Your task to perform on an android device: Go to CNN.com Image 0: 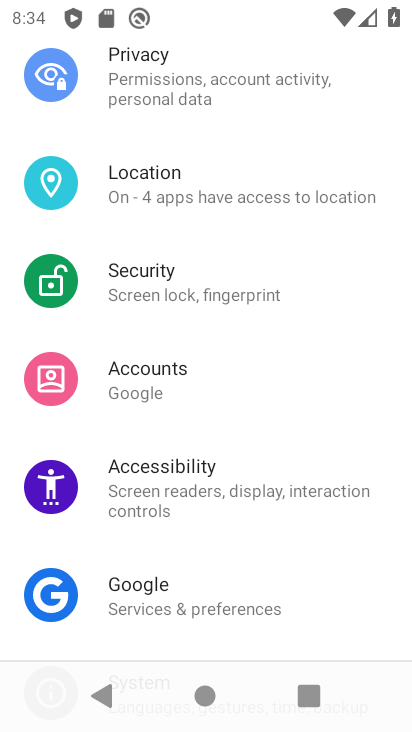
Step 0: press home button
Your task to perform on an android device: Go to CNN.com Image 1: 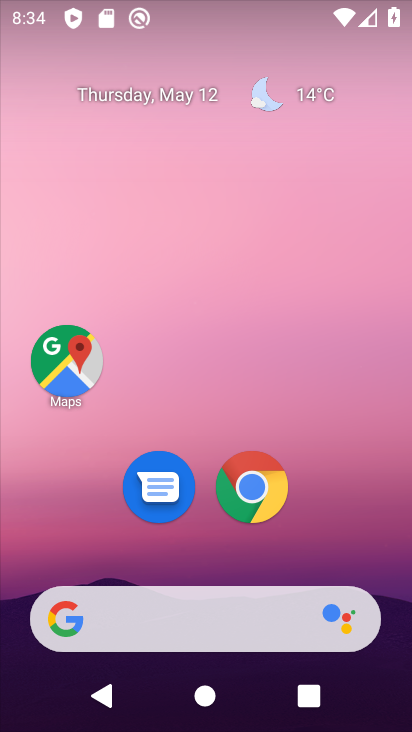
Step 1: click (268, 487)
Your task to perform on an android device: Go to CNN.com Image 2: 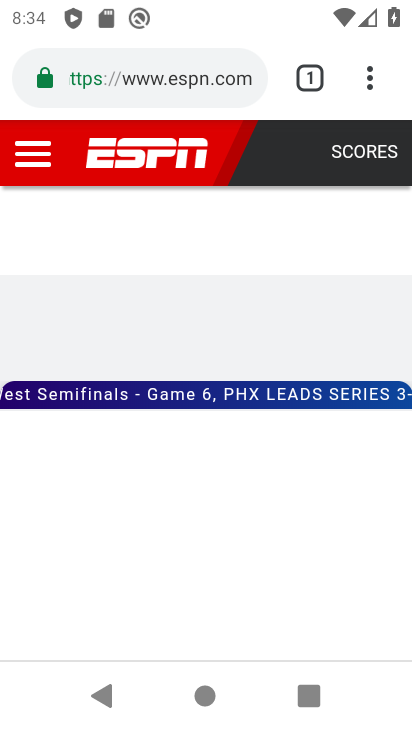
Step 2: click (150, 77)
Your task to perform on an android device: Go to CNN.com Image 3: 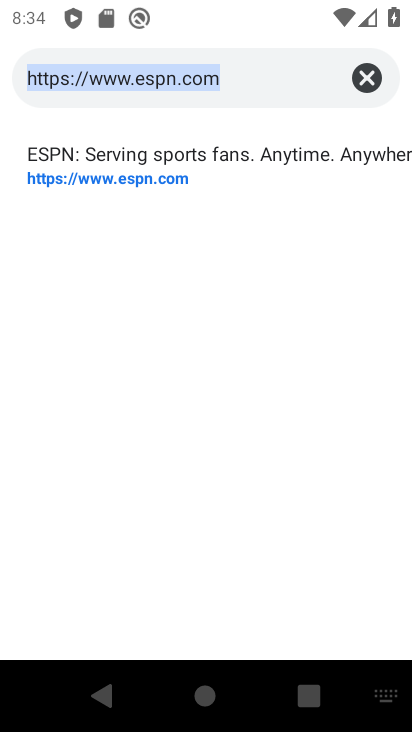
Step 3: click (362, 76)
Your task to perform on an android device: Go to CNN.com Image 4: 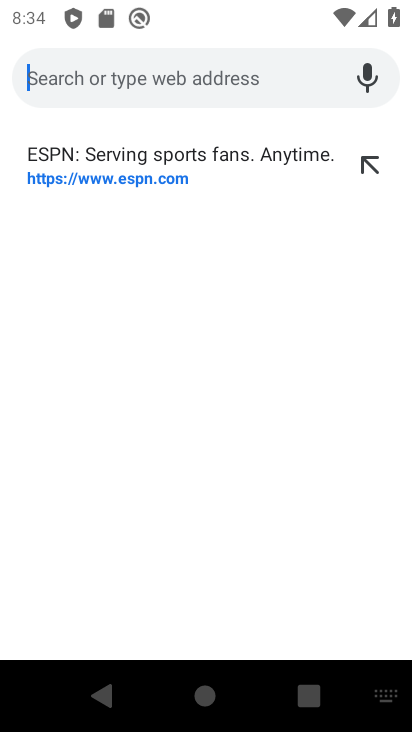
Step 4: click (182, 70)
Your task to perform on an android device: Go to CNN.com Image 5: 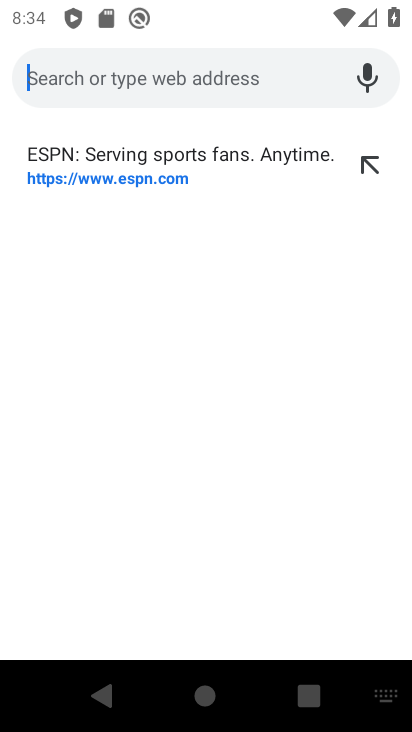
Step 5: type "CNN.com"
Your task to perform on an android device: Go to CNN.com Image 6: 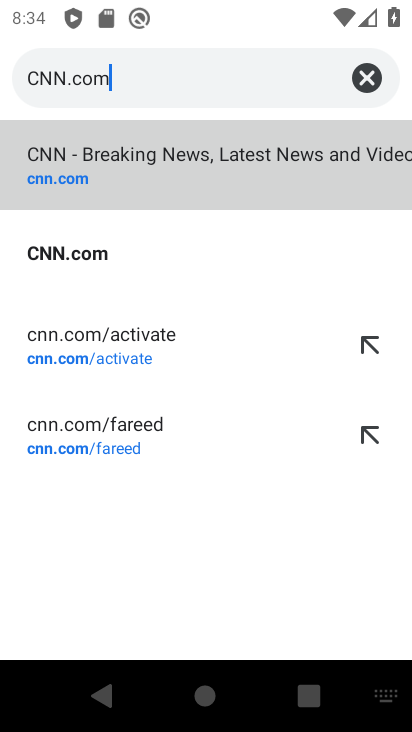
Step 6: type ""
Your task to perform on an android device: Go to CNN.com Image 7: 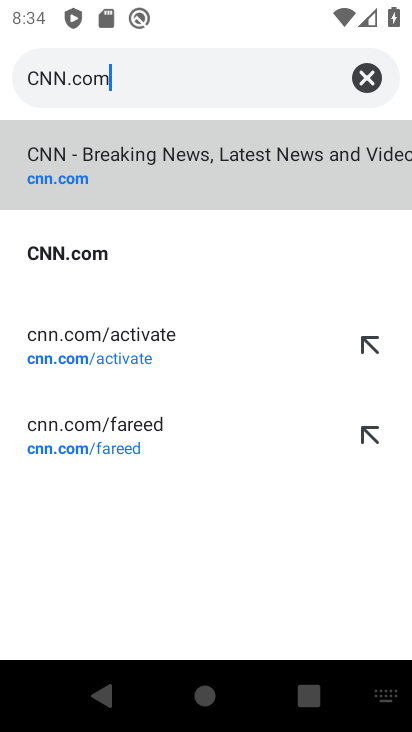
Step 7: click (73, 239)
Your task to perform on an android device: Go to CNN.com Image 8: 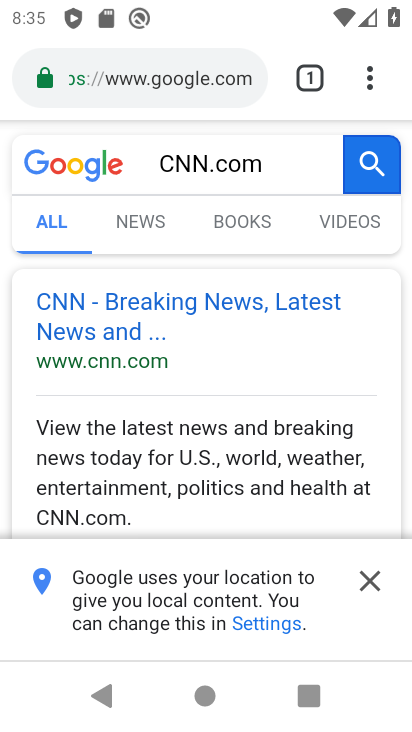
Step 8: click (370, 584)
Your task to perform on an android device: Go to CNN.com Image 9: 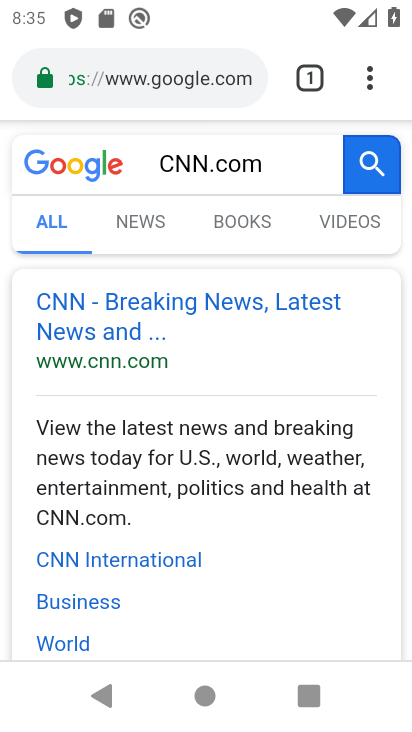
Step 9: task complete